Your task to perform on an android device: allow notifications from all sites in the chrome app Image 0: 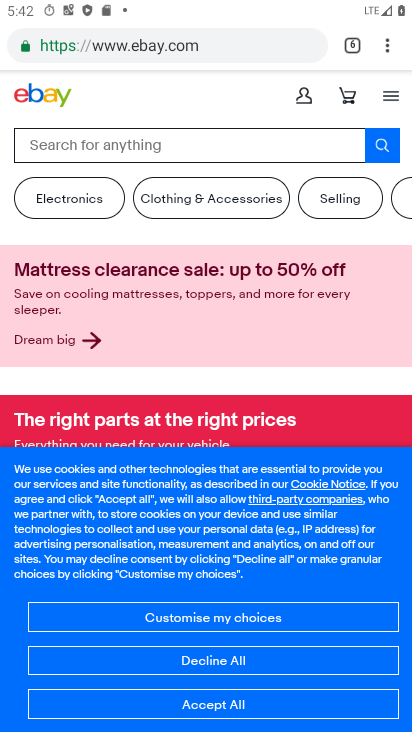
Step 0: press home button
Your task to perform on an android device: allow notifications from all sites in the chrome app Image 1: 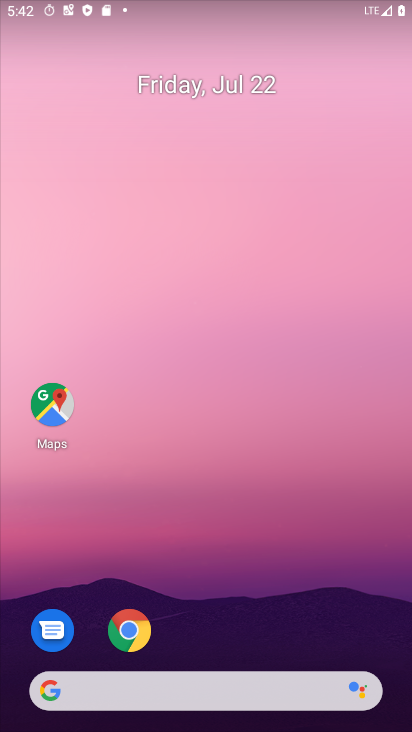
Step 1: drag from (153, 665) to (200, 5)
Your task to perform on an android device: allow notifications from all sites in the chrome app Image 2: 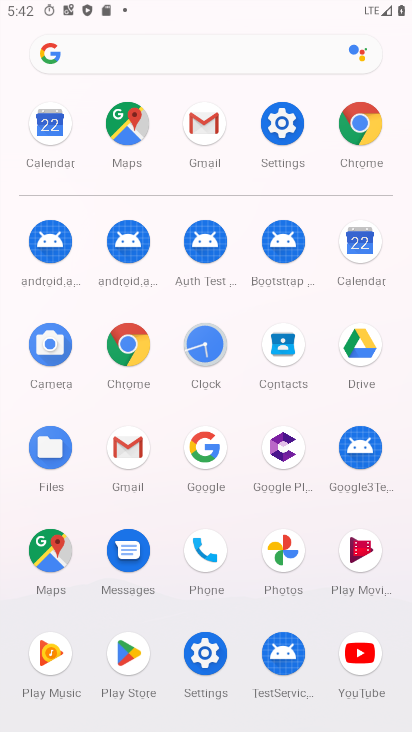
Step 2: click (127, 338)
Your task to perform on an android device: allow notifications from all sites in the chrome app Image 3: 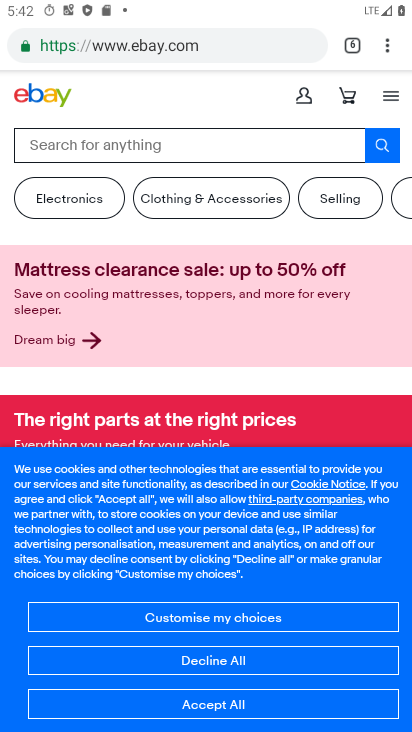
Step 3: drag from (390, 32) to (267, 558)
Your task to perform on an android device: allow notifications from all sites in the chrome app Image 4: 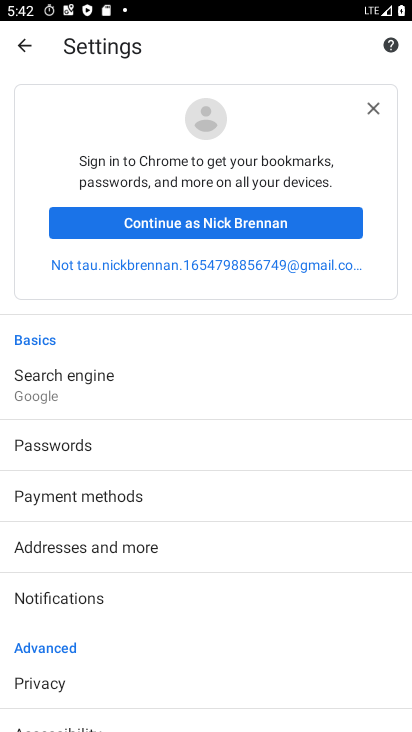
Step 4: drag from (117, 632) to (86, 301)
Your task to perform on an android device: allow notifications from all sites in the chrome app Image 5: 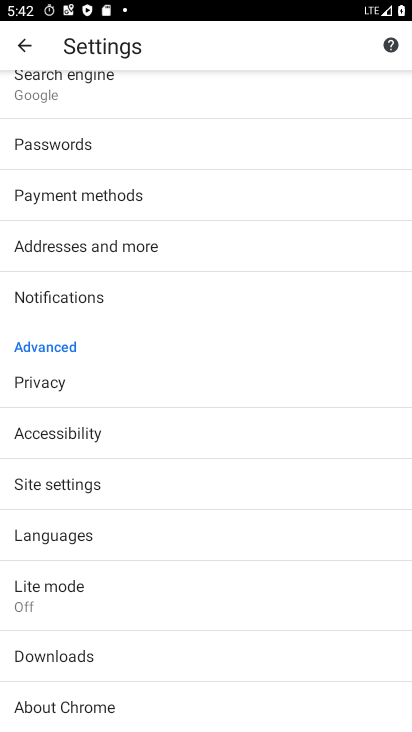
Step 5: click (87, 492)
Your task to perform on an android device: allow notifications from all sites in the chrome app Image 6: 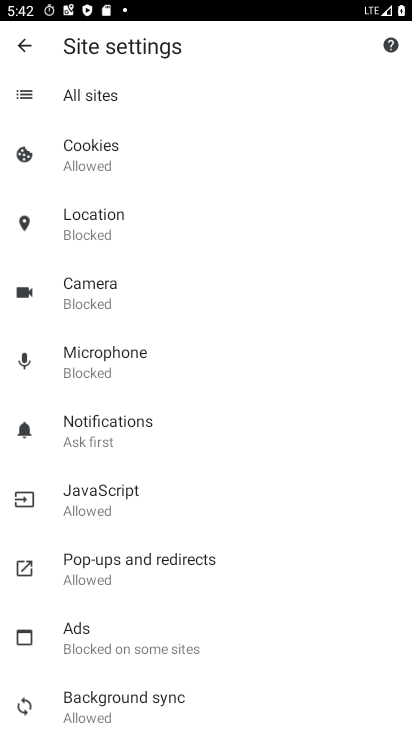
Step 6: click (132, 405)
Your task to perform on an android device: allow notifications from all sites in the chrome app Image 7: 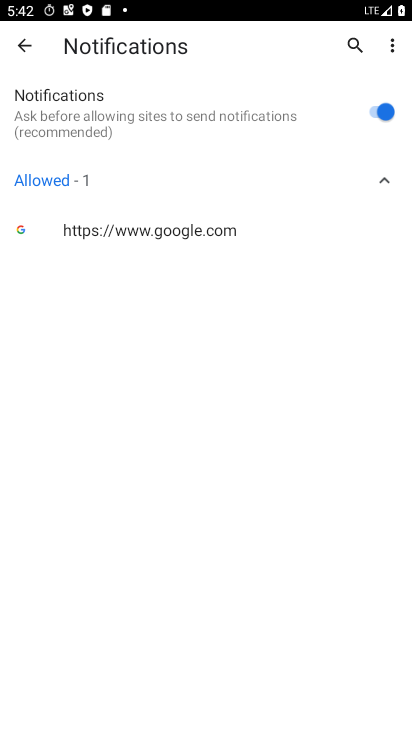
Step 7: task complete